Your task to perform on an android device: install app "Google Calendar" Image 0: 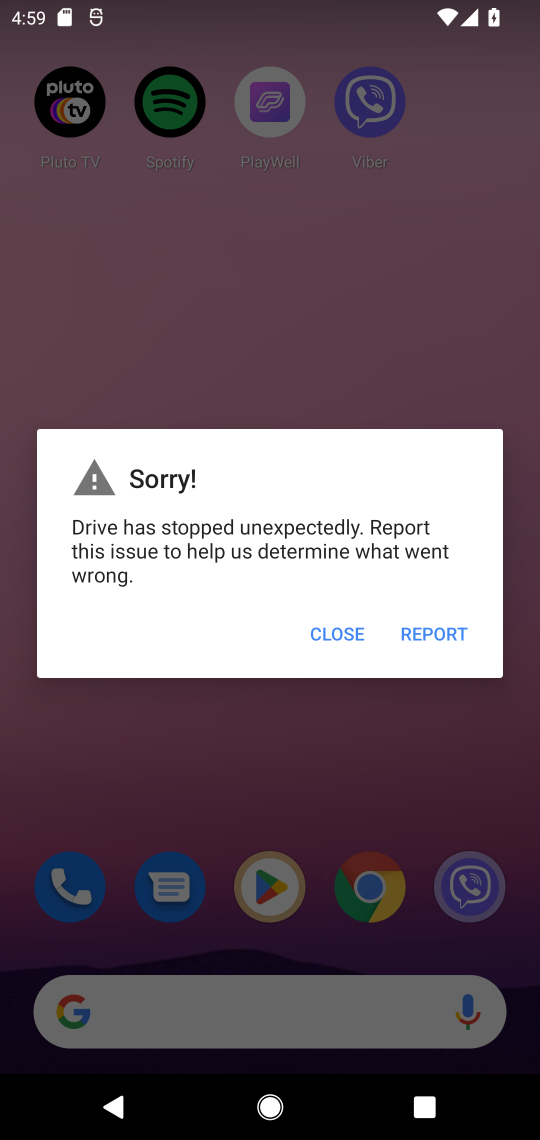
Step 0: press home button
Your task to perform on an android device: install app "Google Calendar" Image 1: 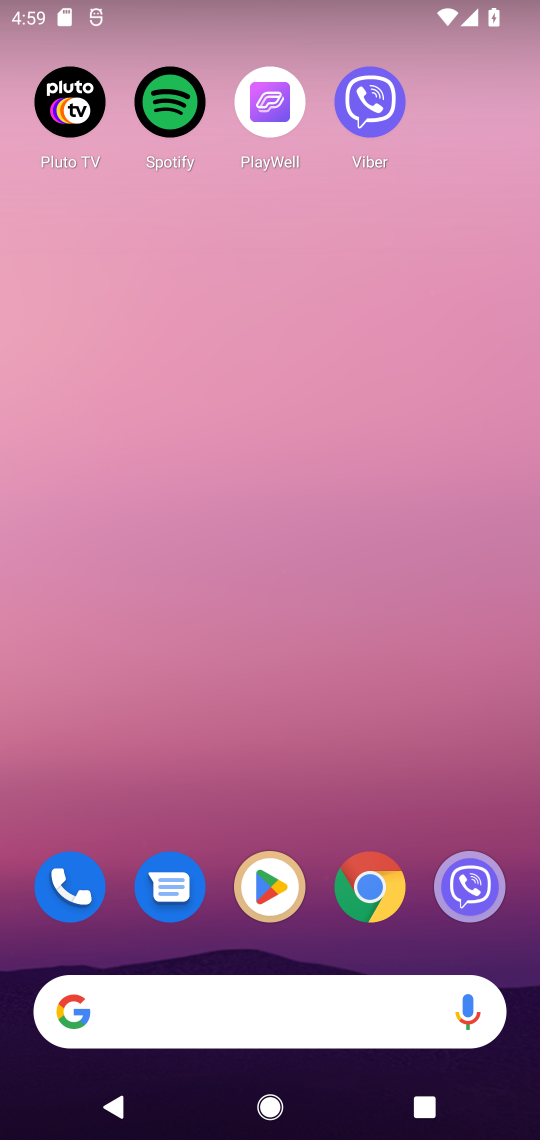
Step 1: click (253, 895)
Your task to perform on an android device: install app "Google Calendar" Image 2: 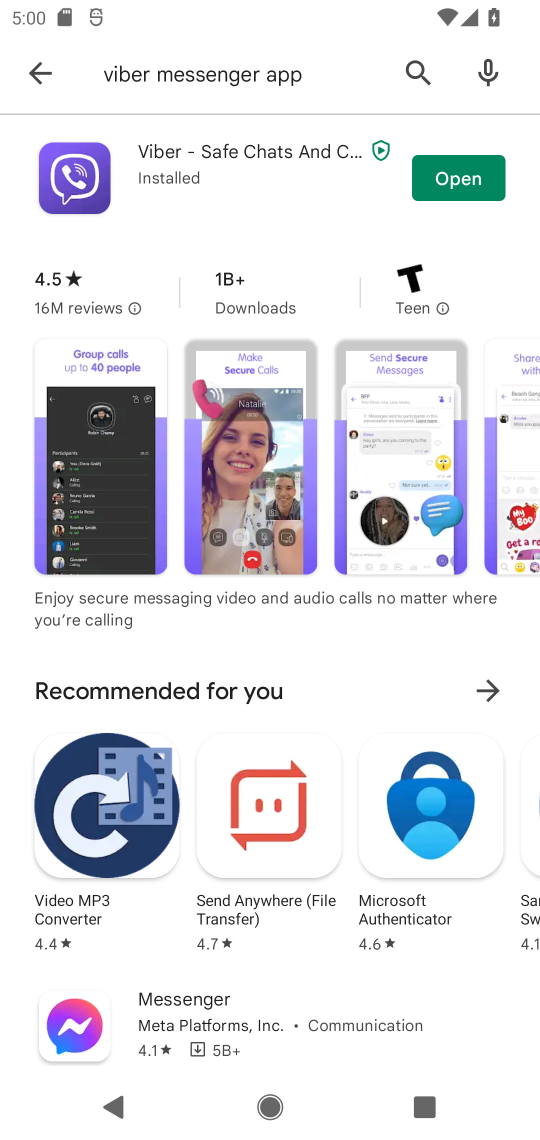
Step 2: click (419, 66)
Your task to perform on an android device: install app "Google Calendar" Image 3: 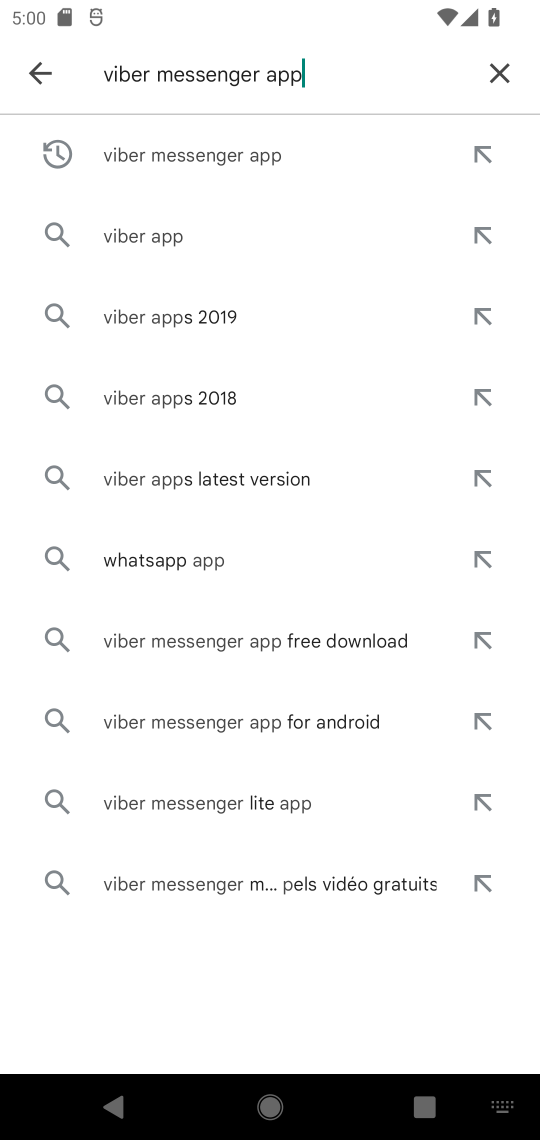
Step 3: click (495, 68)
Your task to perform on an android device: install app "Google Calendar" Image 4: 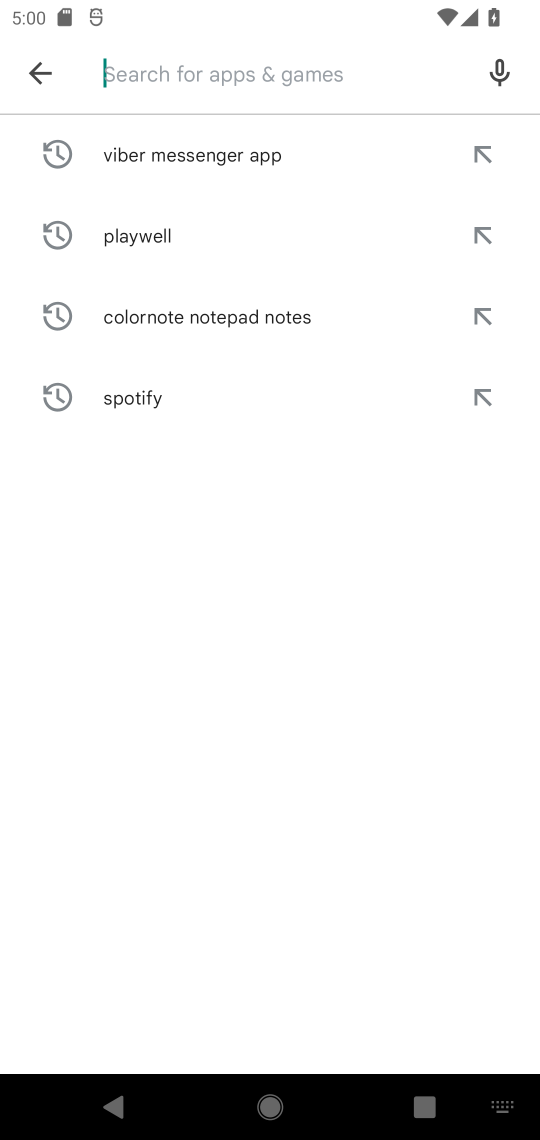
Step 4: type "Google Calender"
Your task to perform on an android device: install app "Google Calendar" Image 5: 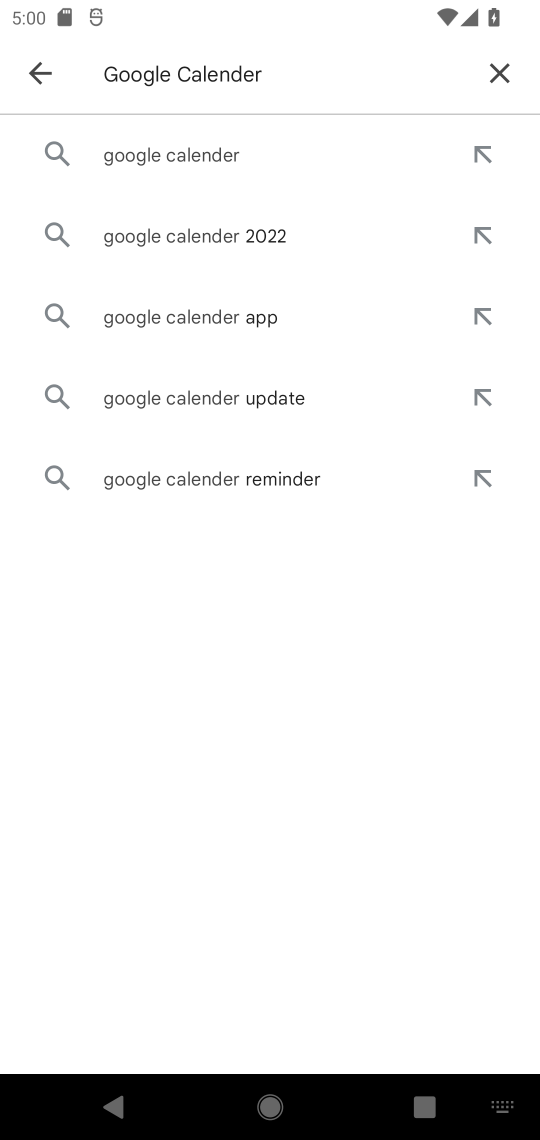
Step 5: click (161, 151)
Your task to perform on an android device: install app "Google Calendar" Image 6: 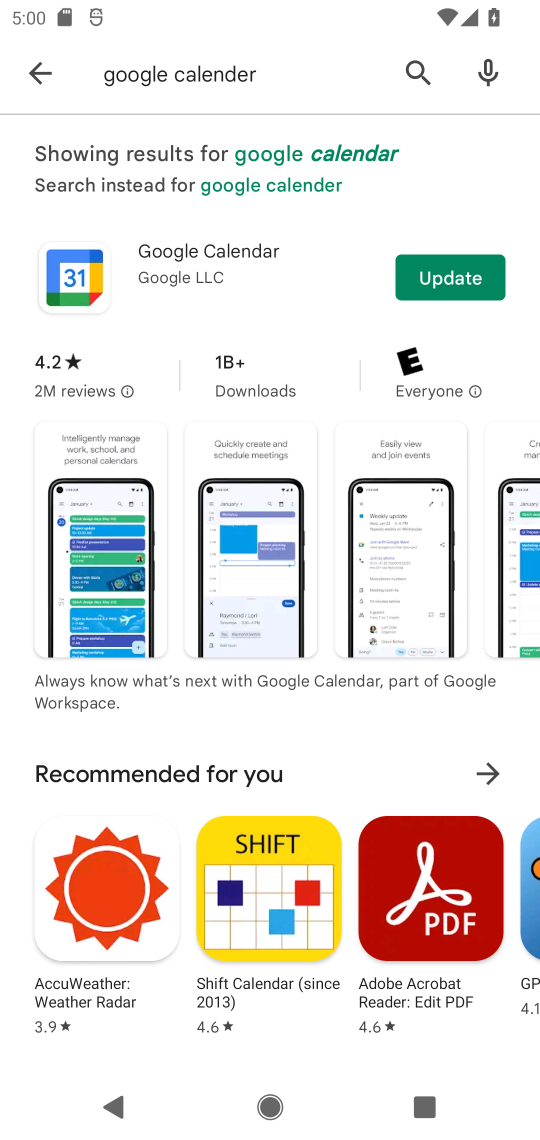
Step 6: click (197, 253)
Your task to perform on an android device: install app "Google Calendar" Image 7: 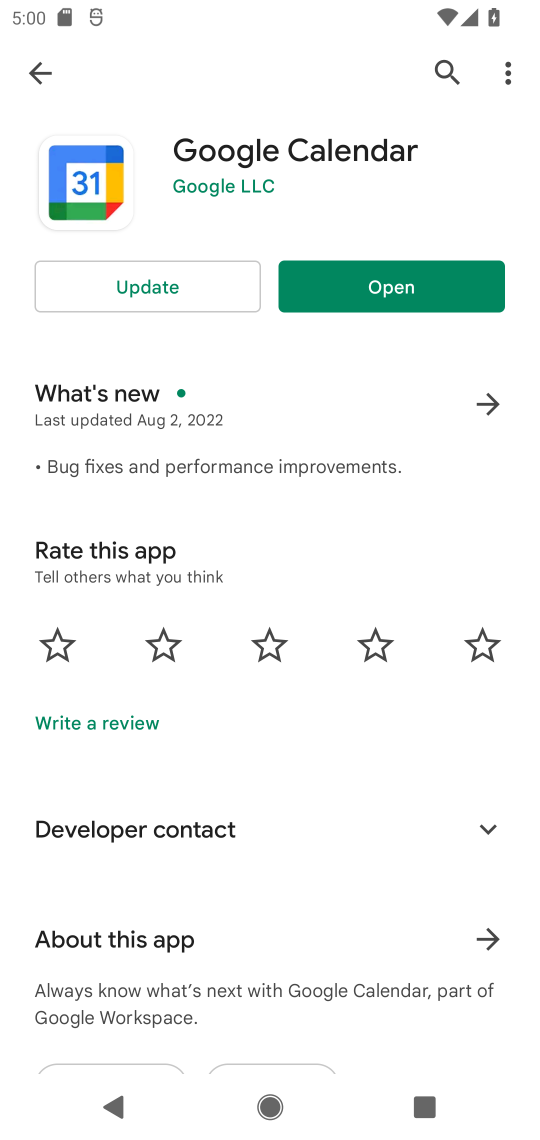
Step 7: task complete